Your task to perform on an android device: Open Reddit.com Image 0: 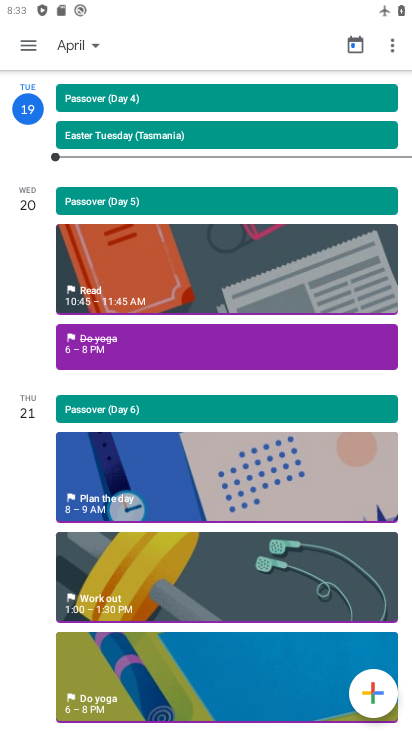
Step 0: press home button
Your task to perform on an android device: Open Reddit.com Image 1: 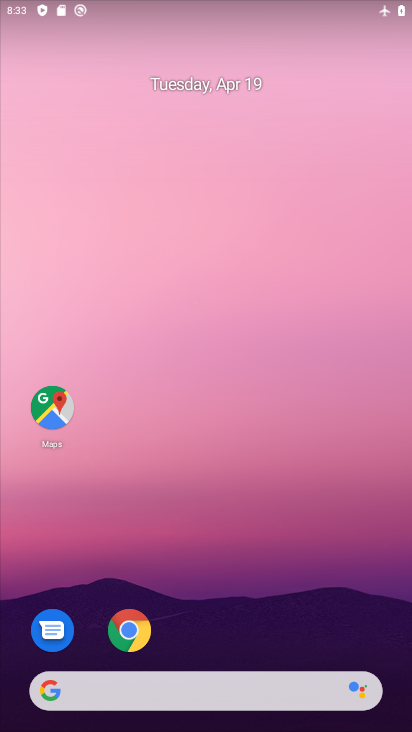
Step 1: click (128, 633)
Your task to perform on an android device: Open Reddit.com Image 2: 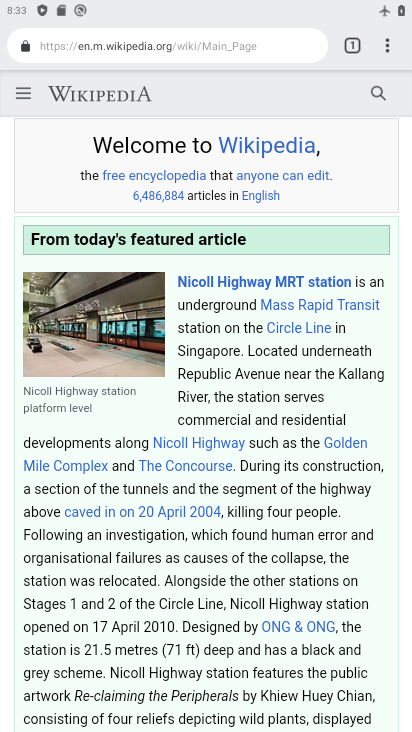
Step 2: click (268, 51)
Your task to perform on an android device: Open Reddit.com Image 3: 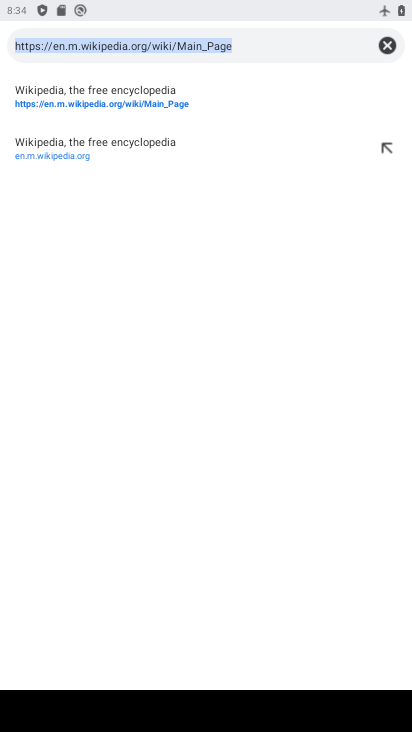
Step 3: type "reddit.com"
Your task to perform on an android device: Open Reddit.com Image 4: 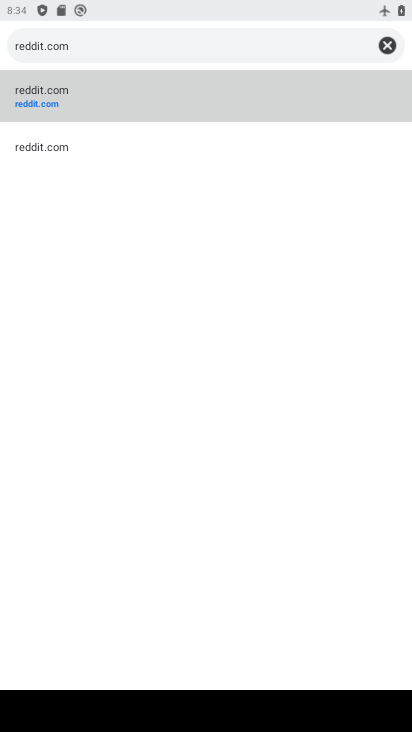
Step 4: click (263, 104)
Your task to perform on an android device: Open Reddit.com Image 5: 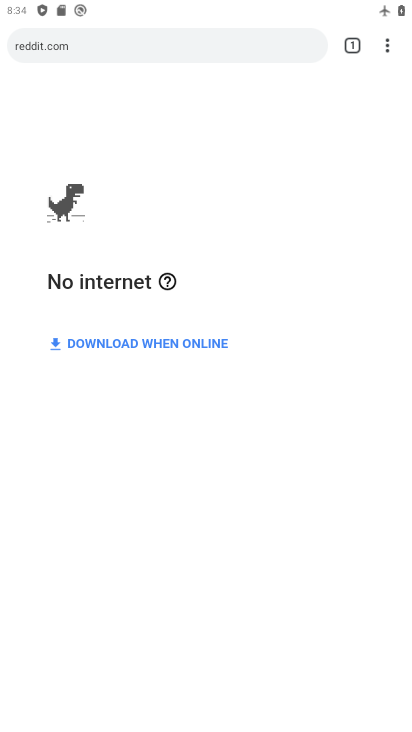
Step 5: task complete